Your task to perform on an android device: Go to ESPN.com Image 0: 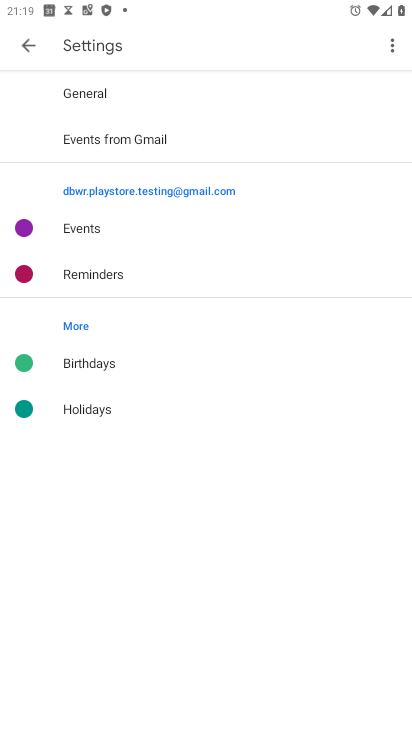
Step 0: press home button
Your task to perform on an android device: Go to ESPN.com Image 1: 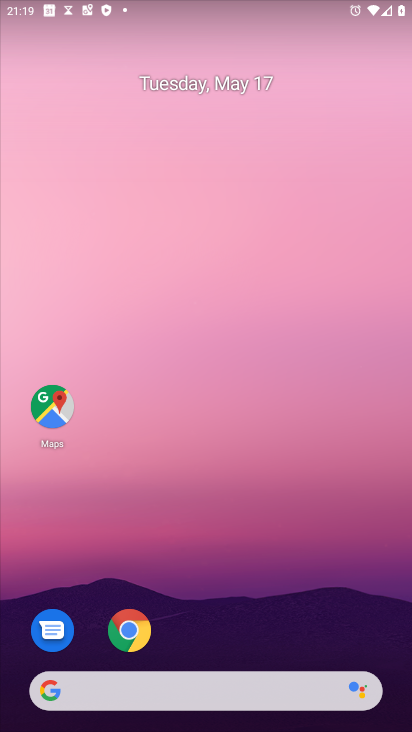
Step 1: click (122, 639)
Your task to perform on an android device: Go to ESPN.com Image 2: 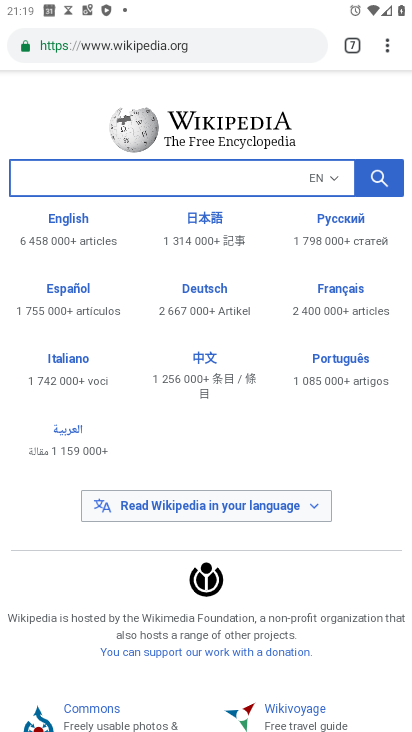
Step 2: click (355, 51)
Your task to perform on an android device: Go to ESPN.com Image 3: 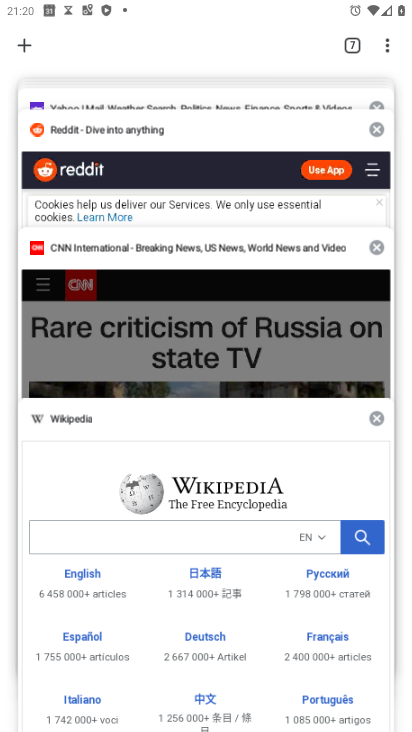
Step 3: drag from (129, 143) to (140, 334)
Your task to perform on an android device: Go to ESPN.com Image 4: 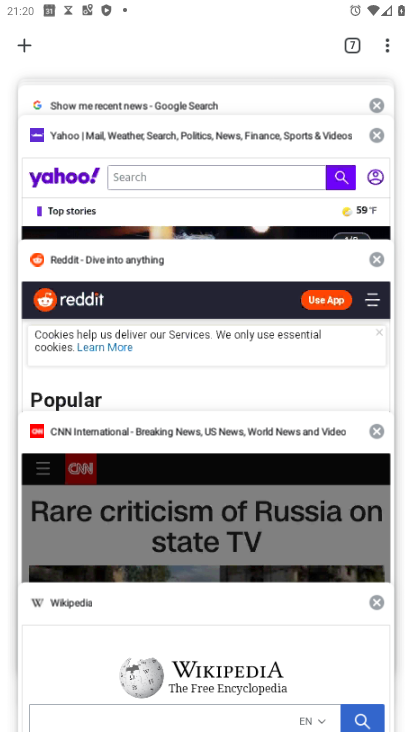
Step 4: click (23, 39)
Your task to perform on an android device: Go to ESPN.com Image 5: 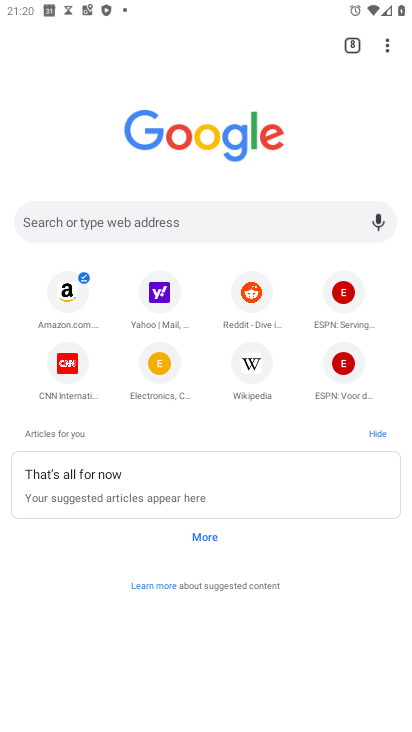
Step 5: click (289, 215)
Your task to perform on an android device: Go to ESPN.com Image 6: 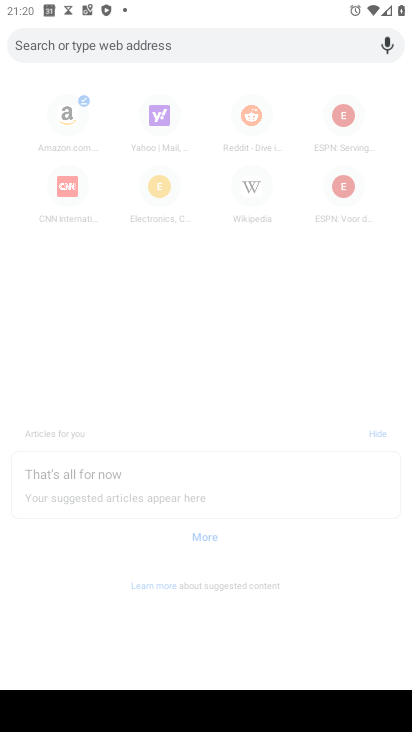
Step 6: type "espn.com"
Your task to perform on an android device: Go to ESPN.com Image 7: 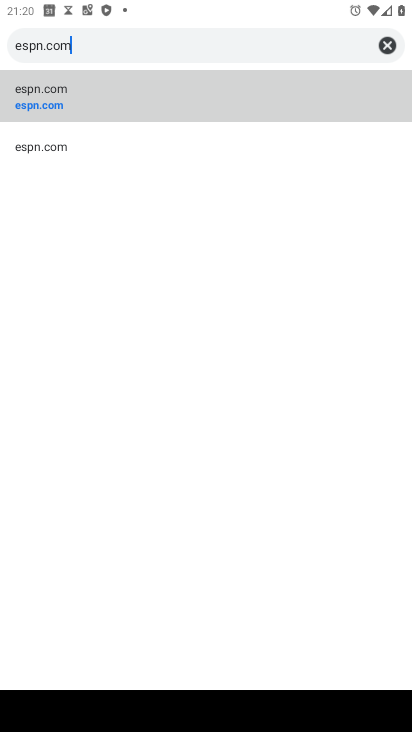
Step 7: click (73, 100)
Your task to perform on an android device: Go to ESPN.com Image 8: 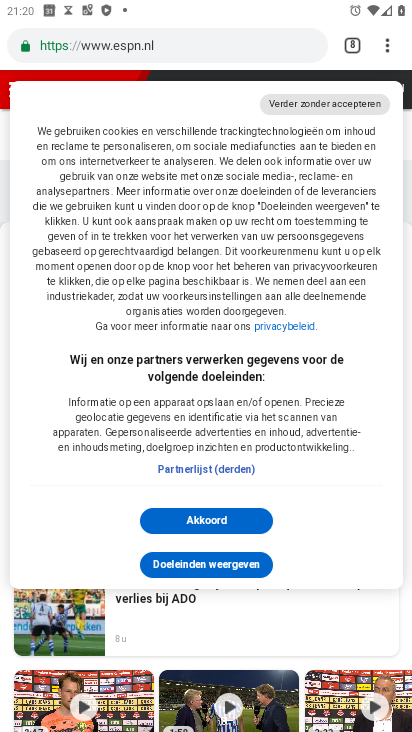
Step 8: drag from (174, 660) to (174, 466)
Your task to perform on an android device: Go to ESPN.com Image 9: 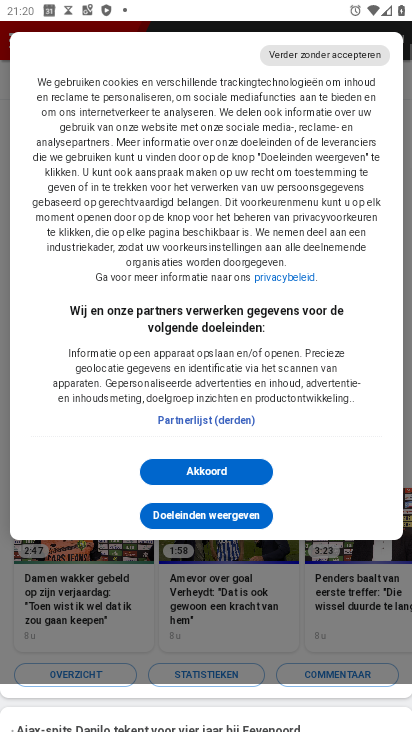
Step 9: click (174, 431)
Your task to perform on an android device: Go to ESPN.com Image 10: 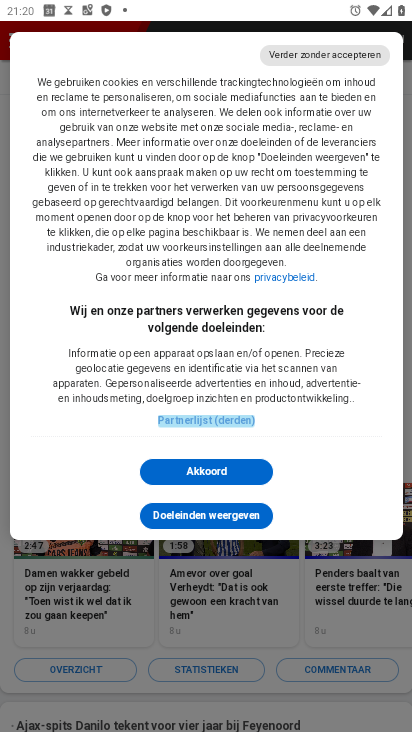
Step 10: click (204, 470)
Your task to perform on an android device: Go to ESPN.com Image 11: 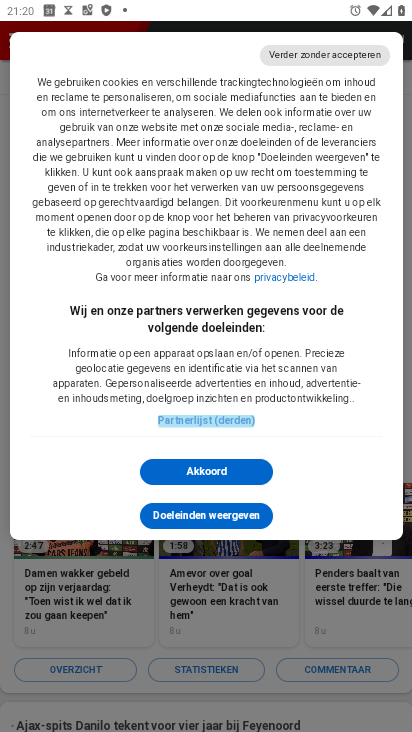
Step 11: task complete